Your task to perform on an android device: Star the last email from tau.udeskybrenna.1654798856749@gmail.com Image 0: 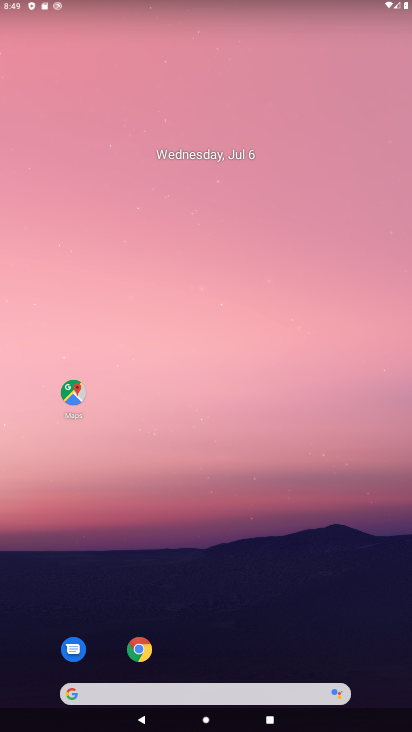
Step 0: drag from (351, 587) to (403, 27)
Your task to perform on an android device: Star the last email from tau.udeskybrenna.1654798856749@gmail.com Image 1: 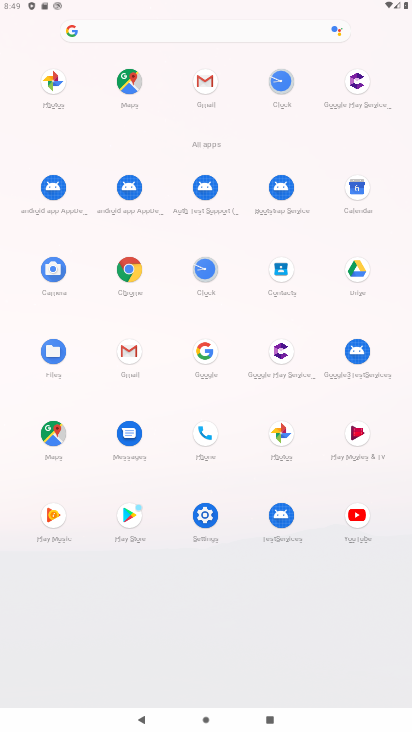
Step 1: click (209, 81)
Your task to perform on an android device: Star the last email from tau.udeskybrenna.1654798856749@gmail.com Image 2: 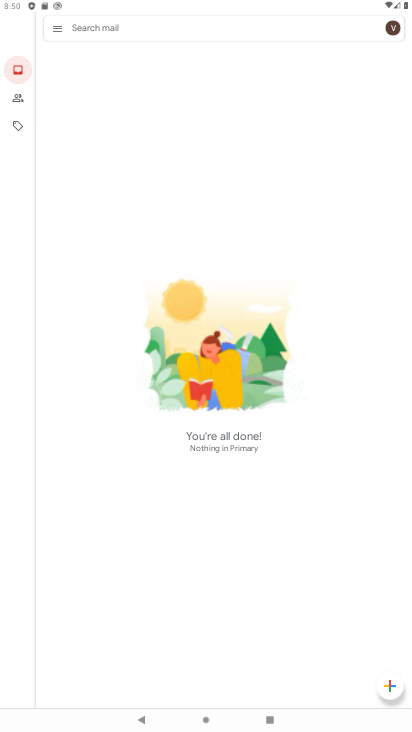
Step 2: task complete